Your task to perform on an android device: What's on my calendar tomorrow? Image 0: 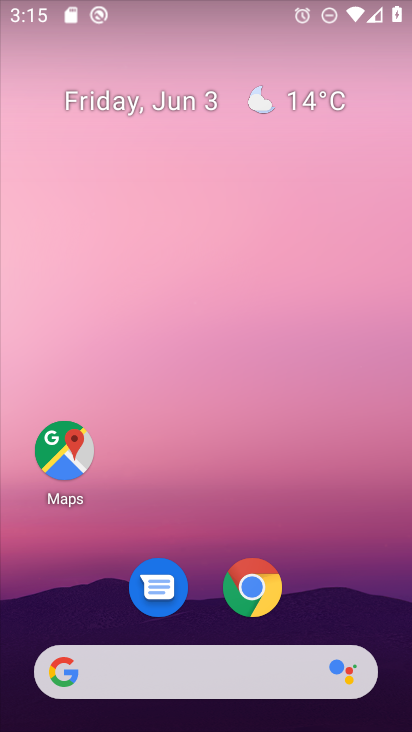
Step 0: drag from (213, 729) to (209, 73)
Your task to perform on an android device: What's on my calendar tomorrow? Image 1: 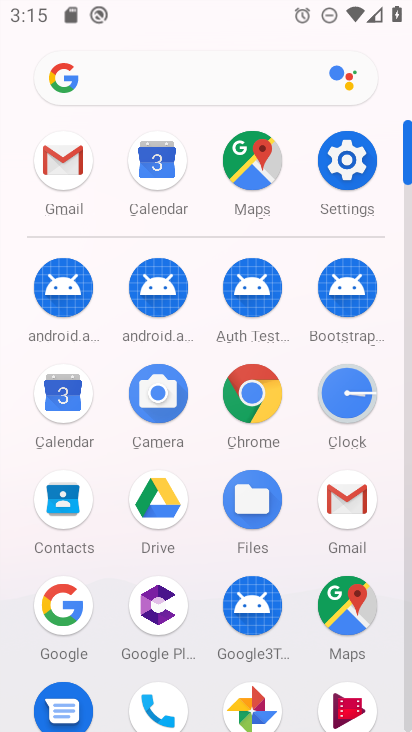
Step 1: click (65, 393)
Your task to perform on an android device: What's on my calendar tomorrow? Image 2: 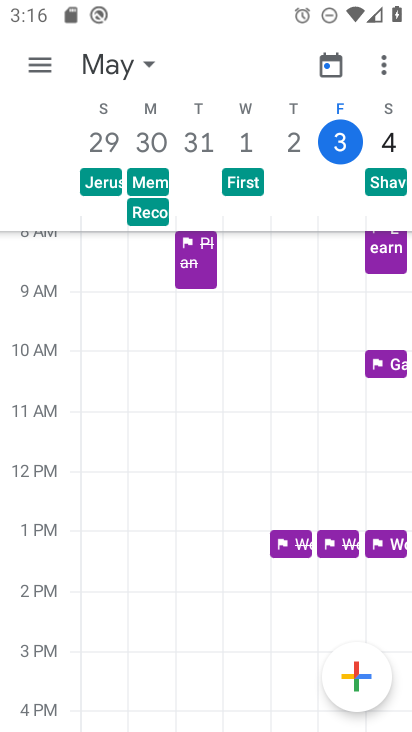
Step 2: click (394, 140)
Your task to perform on an android device: What's on my calendar tomorrow? Image 3: 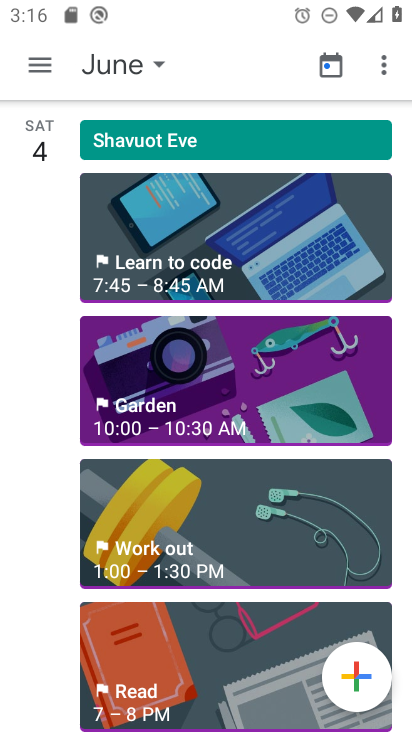
Step 3: task complete